Your task to perform on an android device: Go to CNN.com Image 0: 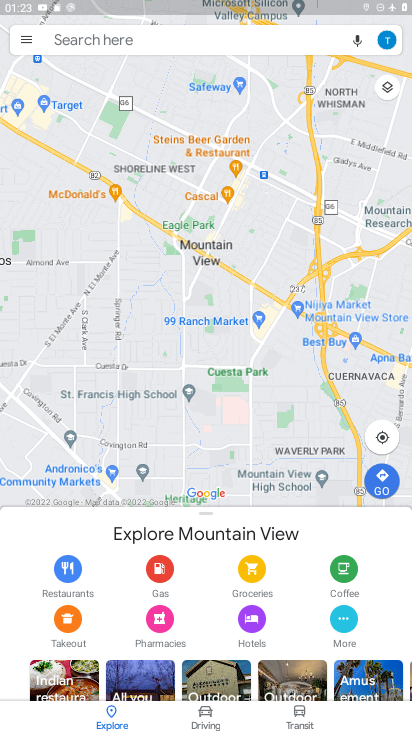
Step 0: press home button
Your task to perform on an android device: Go to CNN.com Image 1: 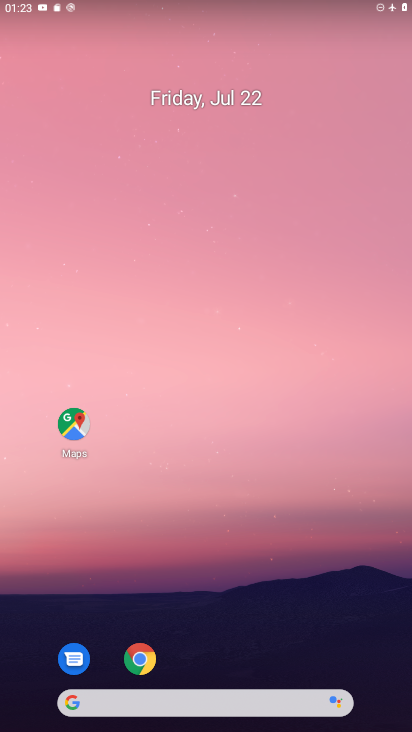
Step 1: click (143, 657)
Your task to perform on an android device: Go to CNN.com Image 2: 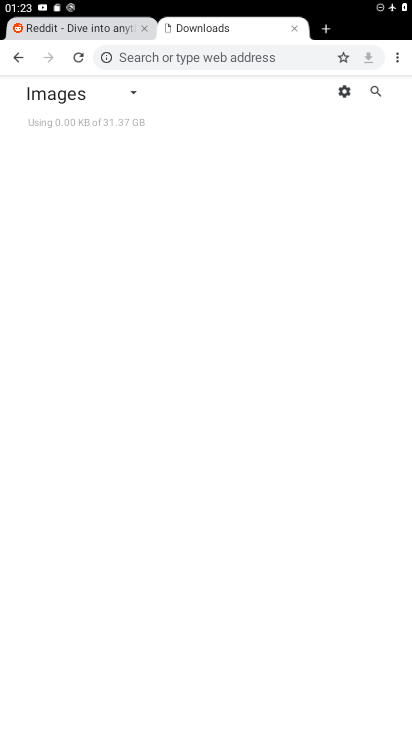
Step 2: click (229, 61)
Your task to perform on an android device: Go to CNN.com Image 3: 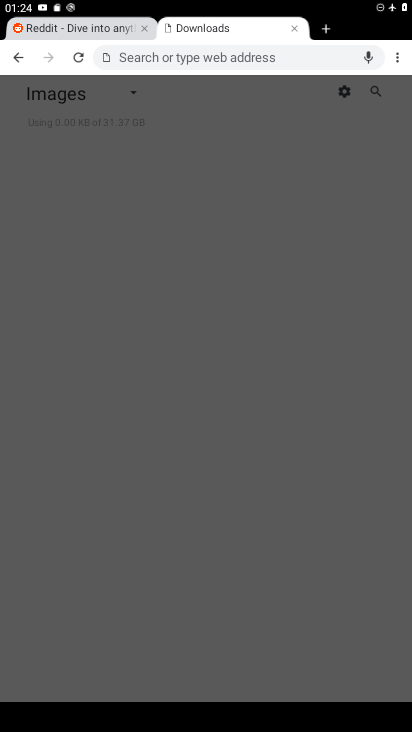
Step 3: type "CNN.com"
Your task to perform on an android device: Go to CNN.com Image 4: 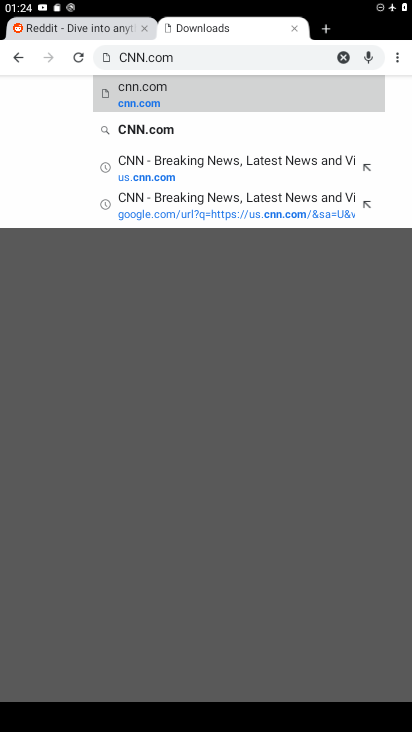
Step 4: click (136, 137)
Your task to perform on an android device: Go to CNN.com Image 5: 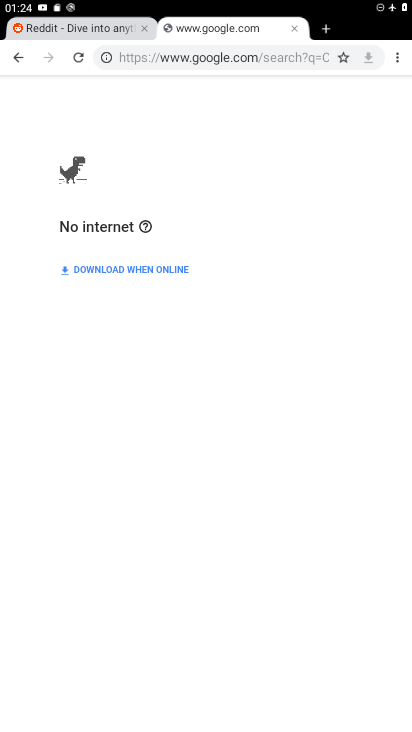
Step 5: task complete